Your task to perform on an android device: star an email in the gmail app Image 0: 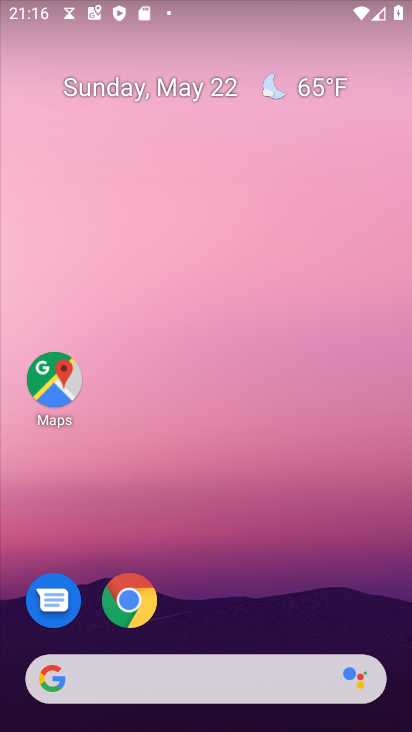
Step 0: drag from (205, 630) to (241, 0)
Your task to perform on an android device: star an email in the gmail app Image 1: 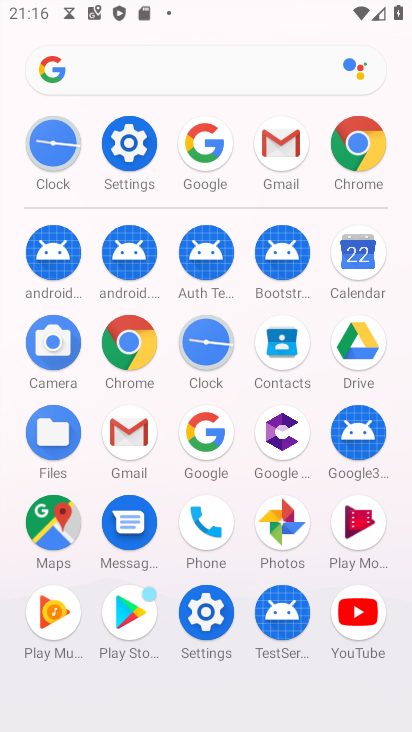
Step 1: click (289, 185)
Your task to perform on an android device: star an email in the gmail app Image 2: 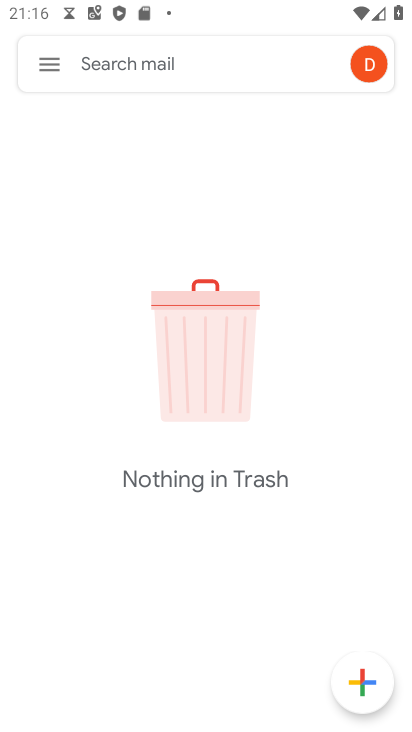
Step 2: click (67, 58)
Your task to perform on an android device: star an email in the gmail app Image 3: 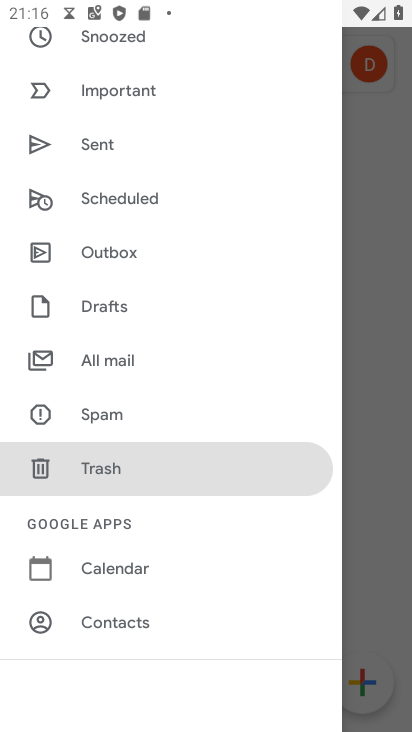
Step 3: click (118, 363)
Your task to perform on an android device: star an email in the gmail app Image 4: 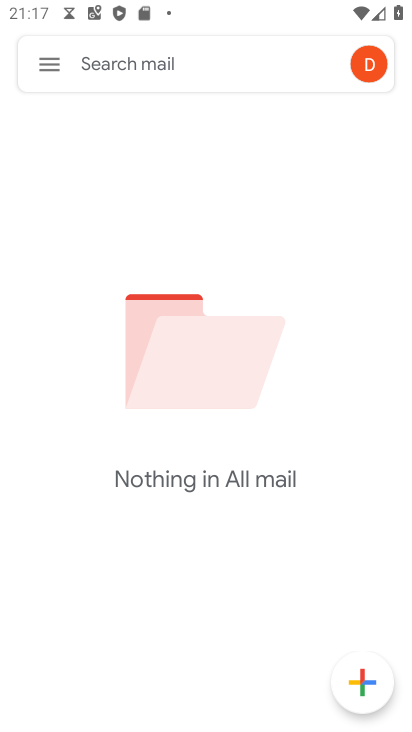
Step 4: task complete